Your task to perform on an android device: uninstall "McDonald's" Image 0: 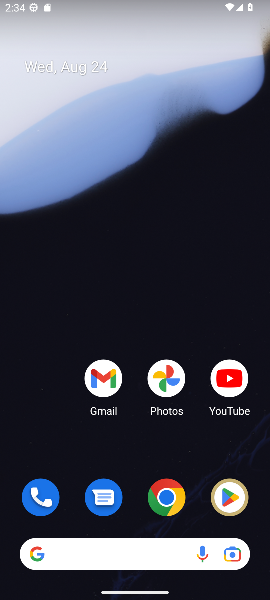
Step 0: drag from (119, 560) to (115, 187)
Your task to perform on an android device: uninstall "McDonald's" Image 1: 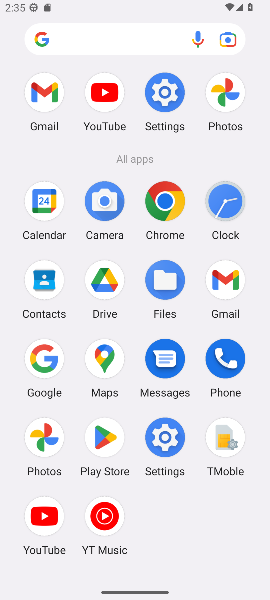
Step 1: click (106, 442)
Your task to perform on an android device: uninstall "McDonald's" Image 2: 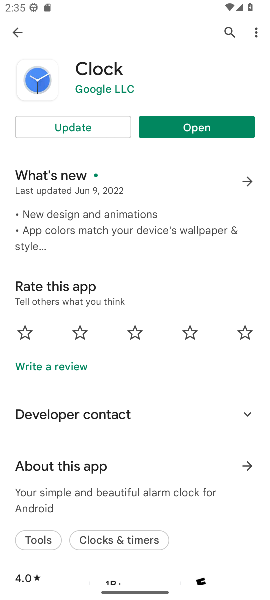
Step 2: press back button
Your task to perform on an android device: uninstall "McDonald's" Image 3: 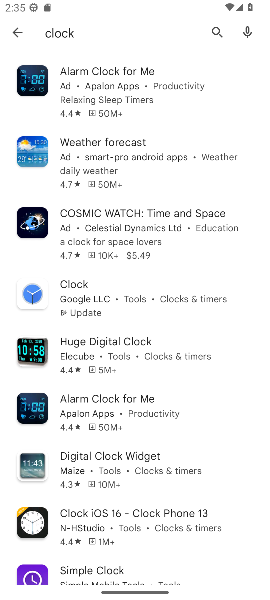
Step 3: press back button
Your task to perform on an android device: uninstall "McDonald's" Image 4: 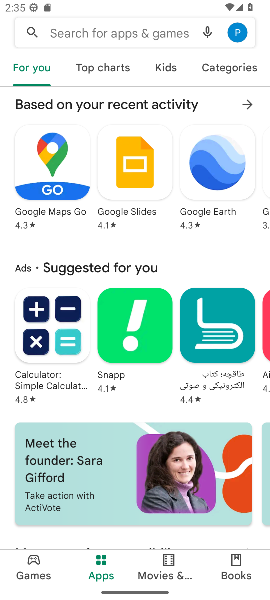
Step 4: click (137, 36)
Your task to perform on an android device: uninstall "McDonald's" Image 5: 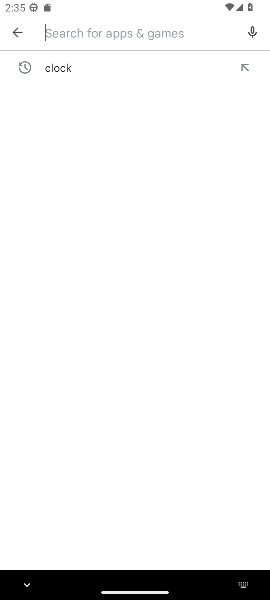
Step 5: type "McDonald's"
Your task to perform on an android device: uninstall "McDonald's" Image 6: 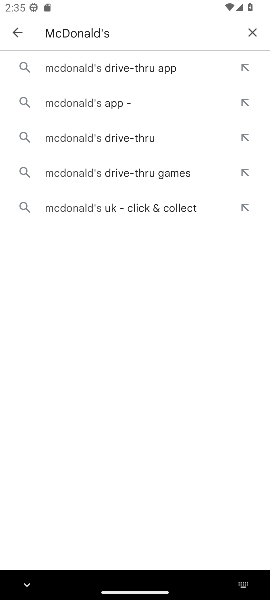
Step 6: click (103, 103)
Your task to perform on an android device: uninstall "McDonald's" Image 7: 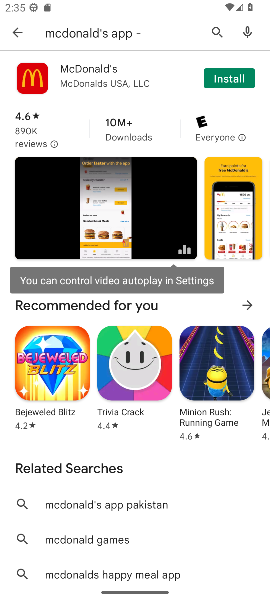
Step 7: task complete